Your task to perform on an android device: Show me recent news Image 0: 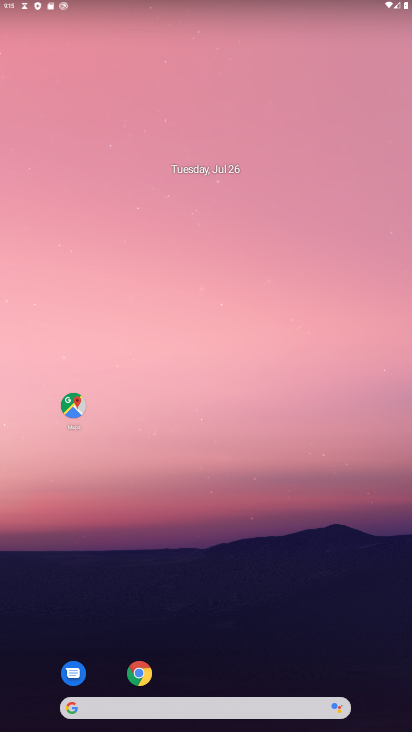
Step 0: drag from (210, 711) to (296, 153)
Your task to perform on an android device: Show me recent news Image 1: 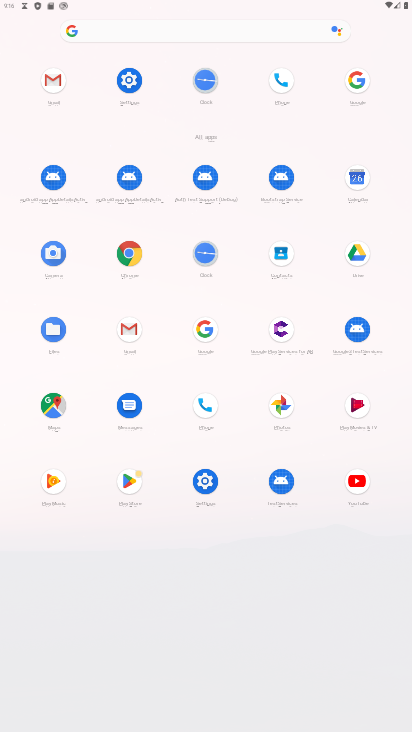
Step 1: click (359, 77)
Your task to perform on an android device: Show me recent news Image 2: 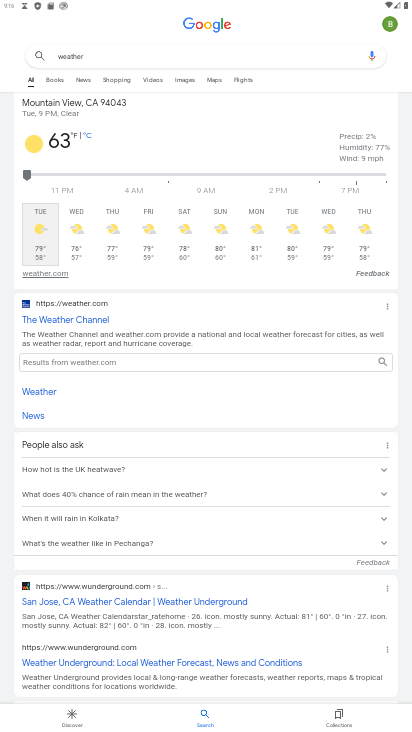
Step 2: click (172, 55)
Your task to perform on an android device: Show me recent news Image 3: 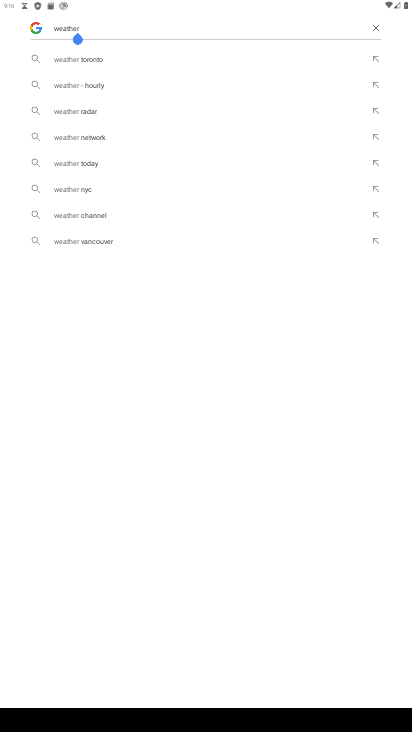
Step 3: click (373, 23)
Your task to perform on an android device: Show me recent news Image 4: 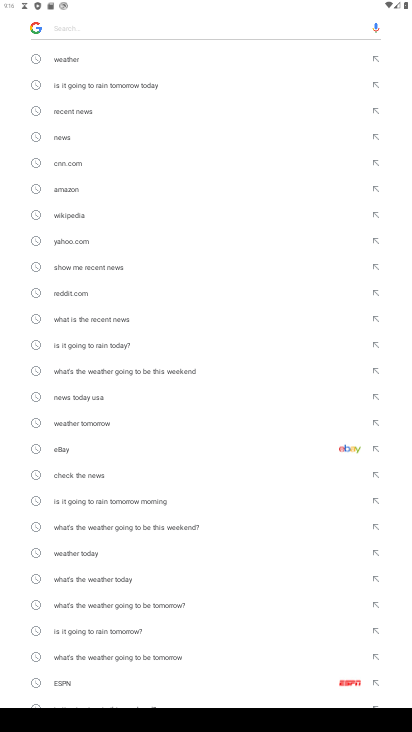
Step 4: type "recent news"
Your task to perform on an android device: Show me recent news Image 5: 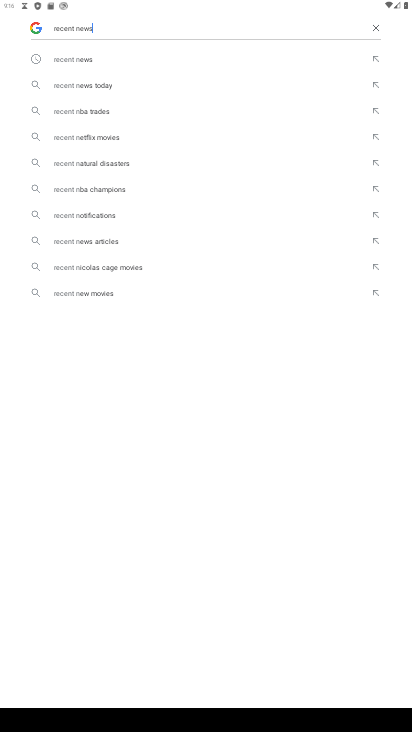
Step 5: type ""
Your task to perform on an android device: Show me recent news Image 6: 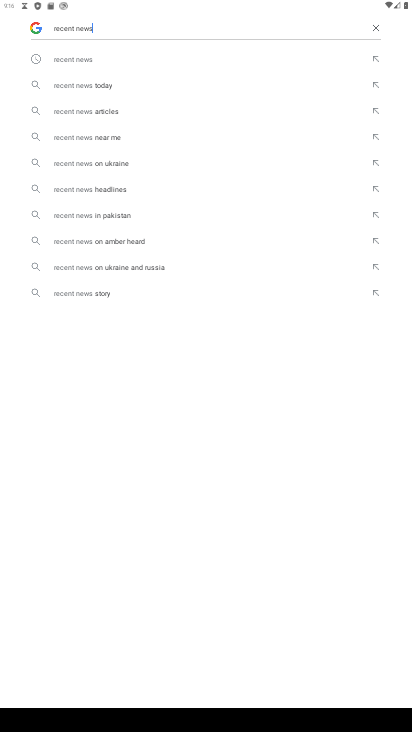
Step 6: click (75, 59)
Your task to perform on an android device: Show me recent news Image 7: 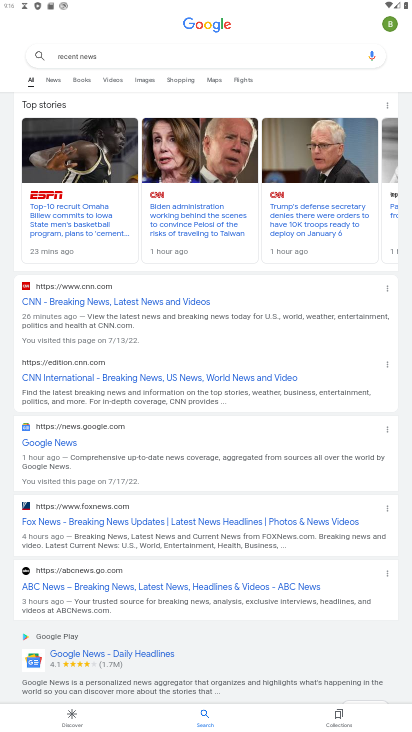
Step 7: click (91, 222)
Your task to perform on an android device: Show me recent news Image 8: 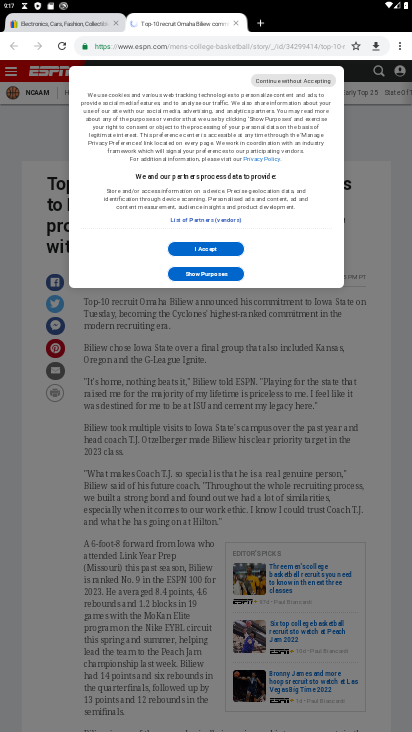
Step 8: click (205, 252)
Your task to perform on an android device: Show me recent news Image 9: 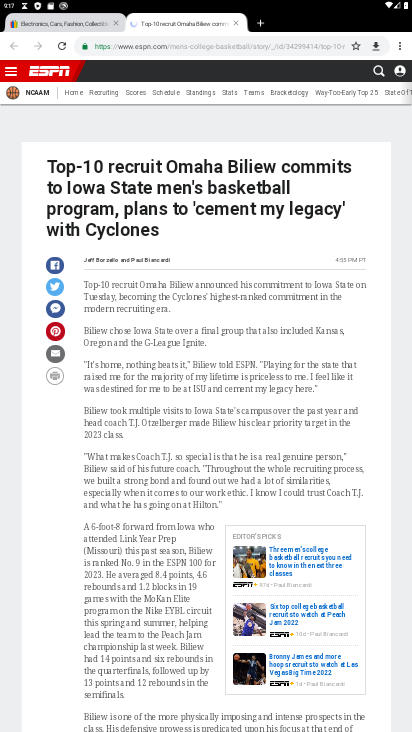
Step 9: task complete